Your task to perform on an android device: Search for Mexican restaurants on Maps Image 0: 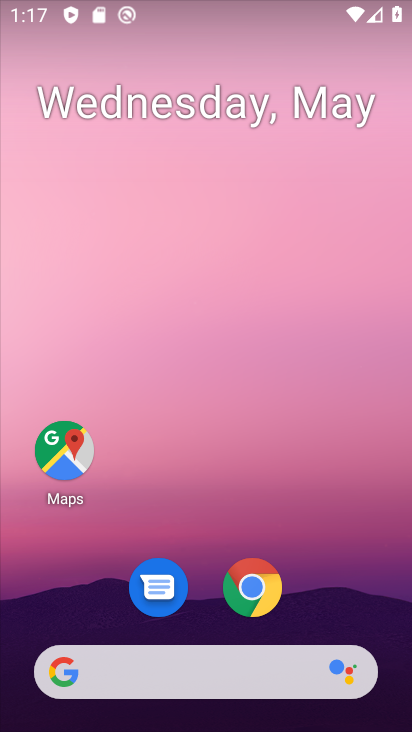
Step 0: click (76, 473)
Your task to perform on an android device: Search for Mexican restaurants on Maps Image 1: 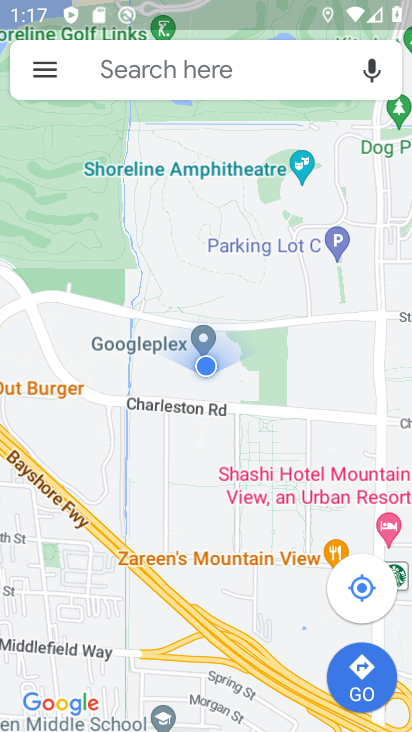
Step 1: click (209, 54)
Your task to perform on an android device: Search for Mexican restaurants on Maps Image 2: 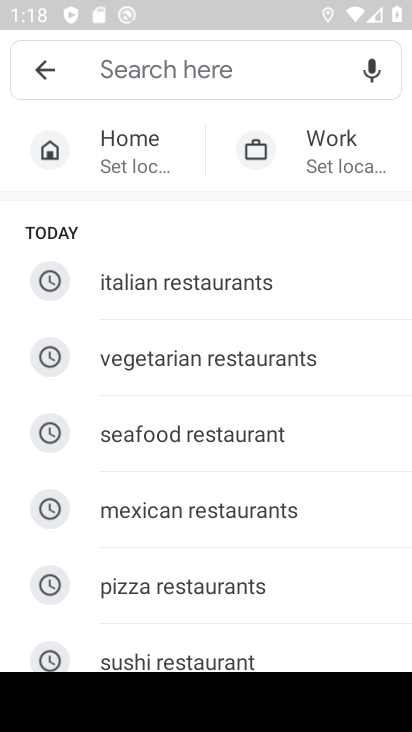
Step 2: click (155, 517)
Your task to perform on an android device: Search for Mexican restaurants on Maps Image 3: 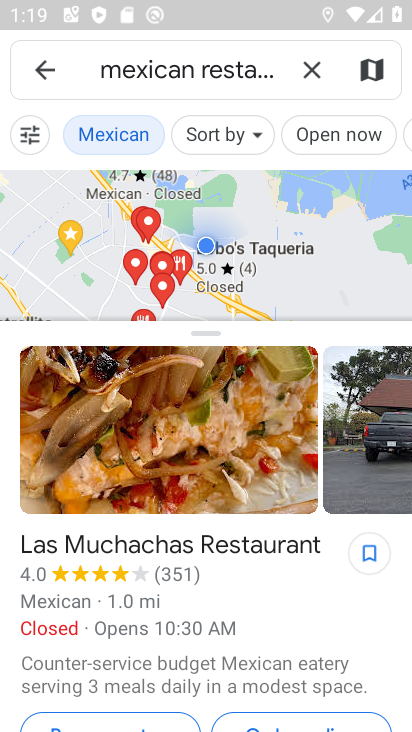
Step 3: task complete